Your task to perform on an android device: Toggle the flashlight Image 0: 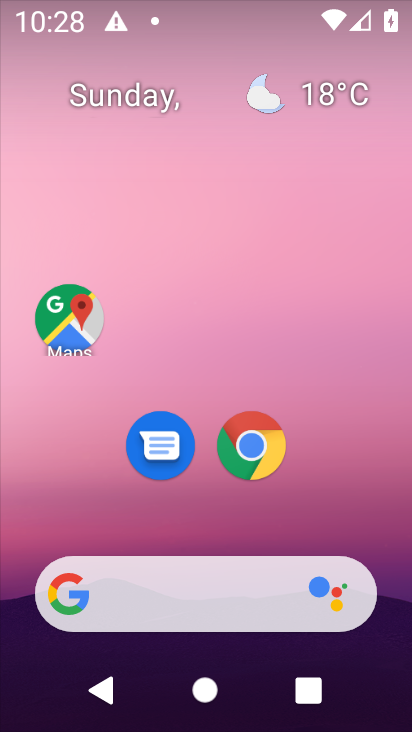
Step 0: drag from (205, 12) to (260, 532)
Your task to perform on an android device: Toggle the flashlight Image 1: 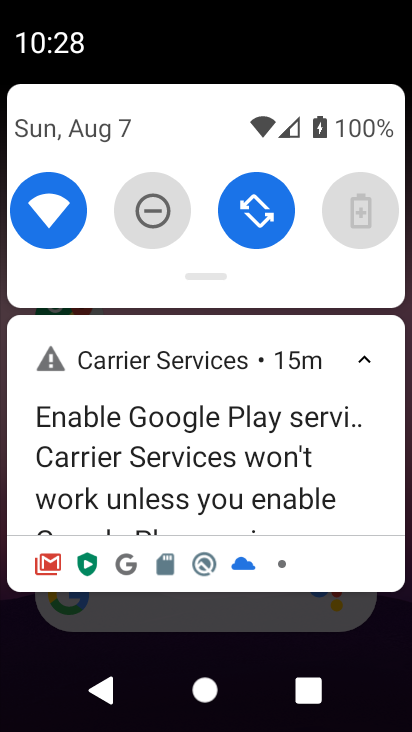
Step 1: task complete